Your task to perform on an android device: Is it going to rain tomorrow? Image 0: 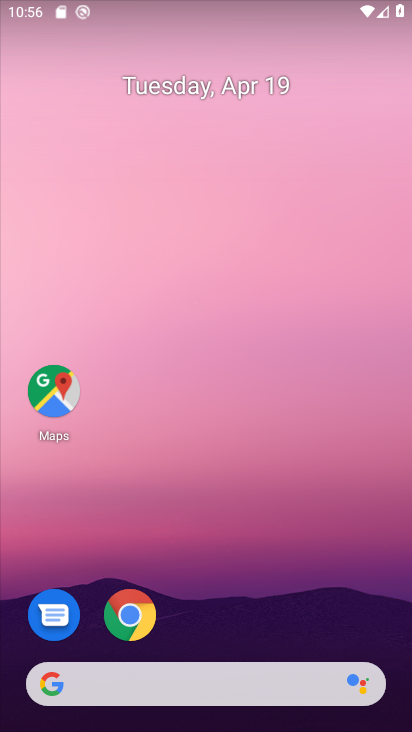
Step 0: drag from (210, 472) to (206, 148)
Your task to perform on an android device: Is it going to rain tomorrow? Image 1: 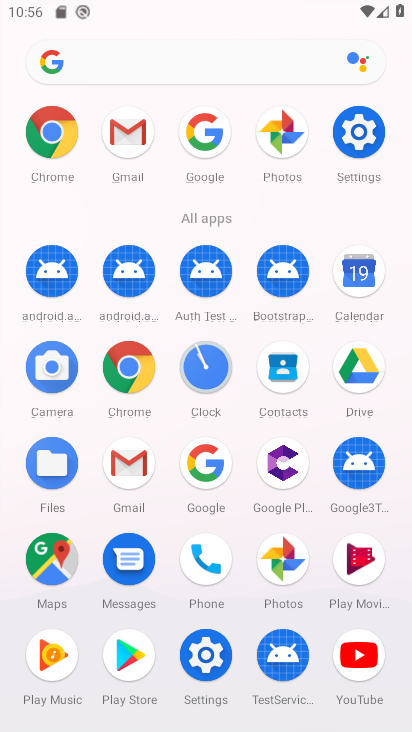
Step 1: click (204, 146)
Your task to perform on an android device: Is it going to rain tomorrow? Image 2: 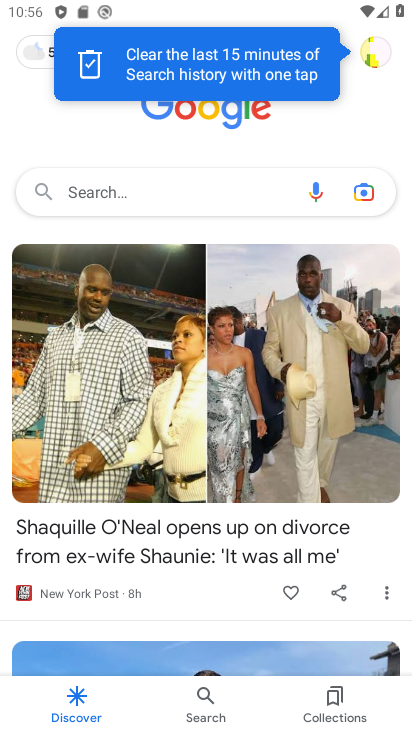
Step 2: click (37, 53)
Your task to perform on an android device: Is it going to rain tomorrow? Image 3: 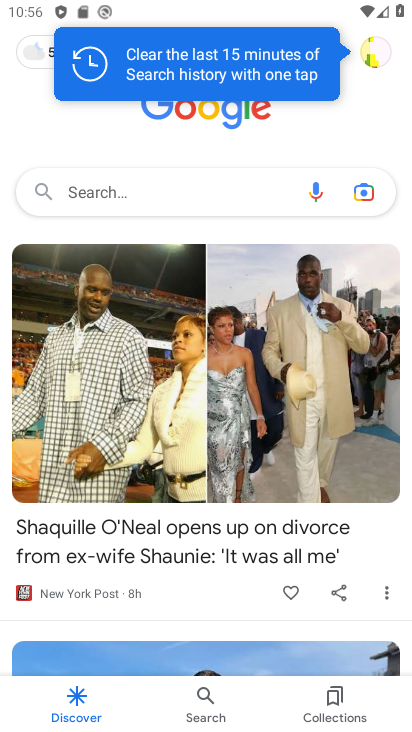
Step 3: click (45, 48)
Your task to perform on an android device: Is it going to rain tomorrow? Image 4: 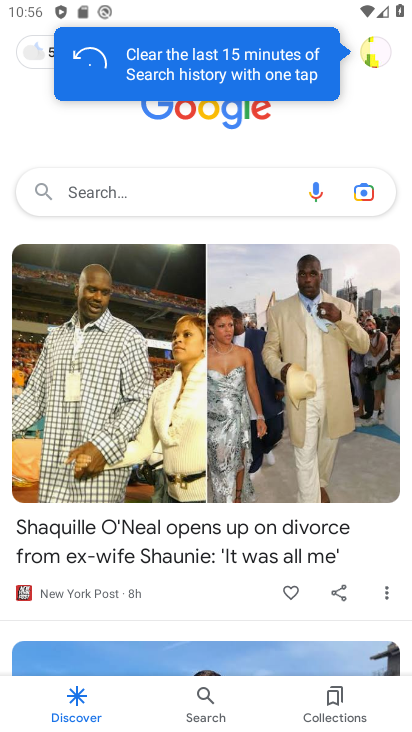
Step 4: click (30, 48)
Your task to perform on an android device: Is it going to rain tomorrow? Image 5: 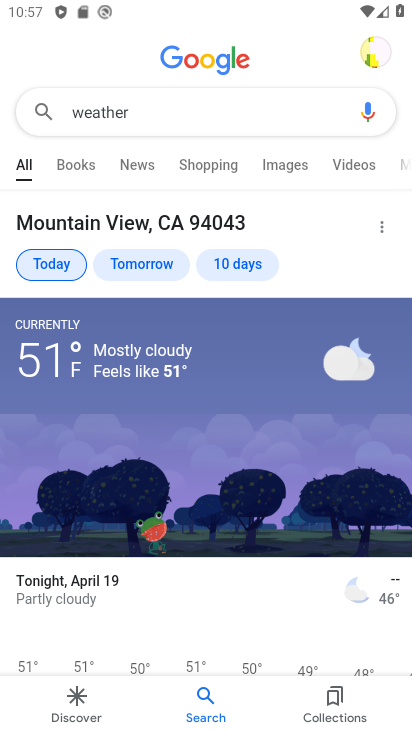
Step 5: click (144, 259)
Your task to perform on an android device: Is it going to rain tomorrow? Image 6: 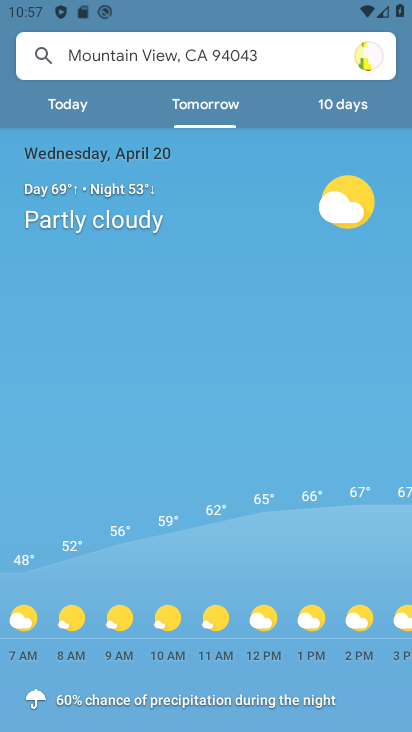
Step 6: task complete